Your task to perform on an android device: find photos in the google photos app Image 0: 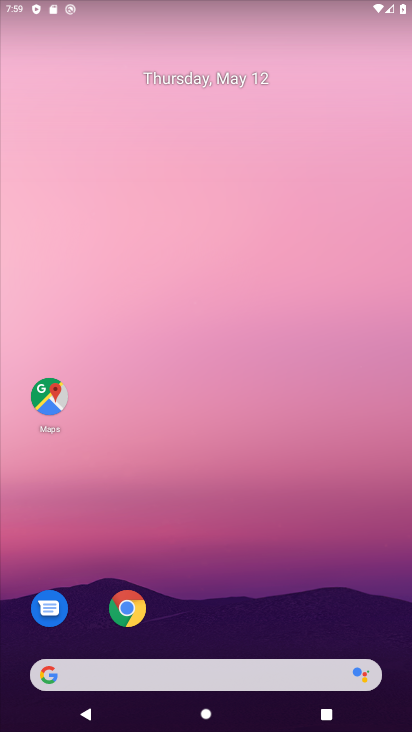
Step 0: drag from (248, 627) to (290, 10)
Your task to perform on an android device: find photos in the google photos app Image 1: 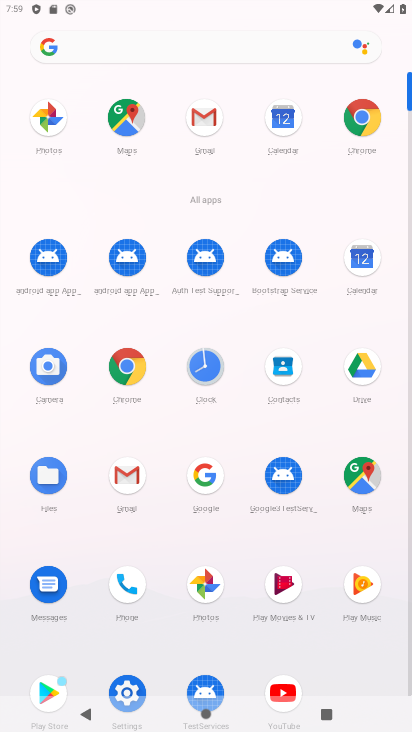
Step 1: click (48, 135)
Your task to perform on an android device: find photos in the google photos app Image 2: 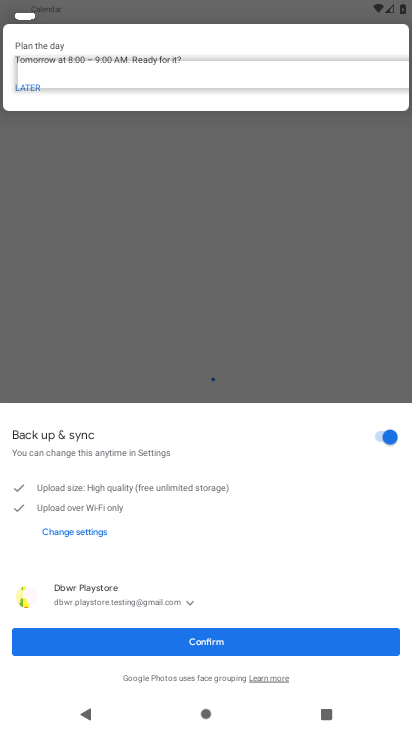
Step 2: click (247, 645)
Your task to perform on an android device: find photos in the google photos app Image 3: 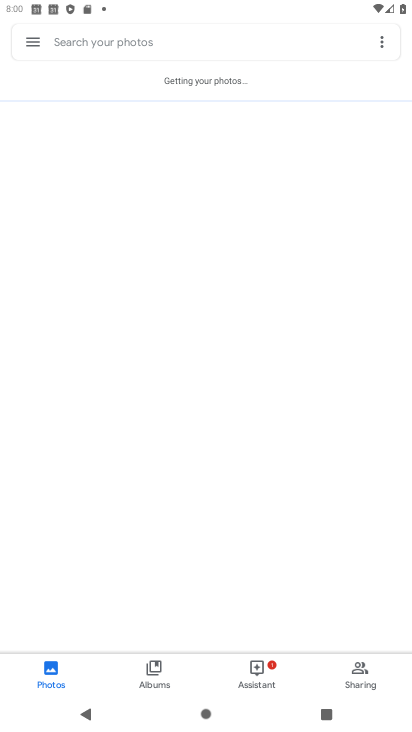
Step 3: click (50, 671)
Your task to perform on an android device: find photos in the google photos app Image 4: 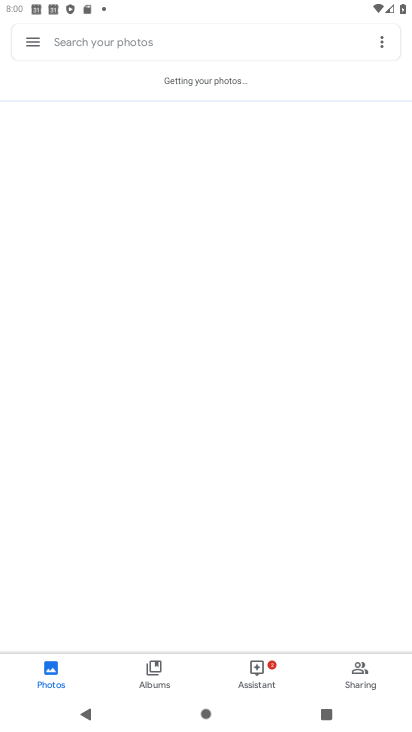
Step 4: click (155, 682)
Your task to perform on an android device: find photos in the google photos app Image 5: 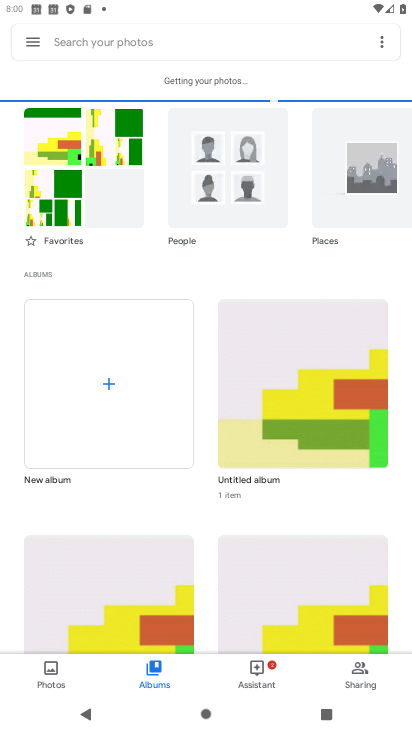
Step 5: click (79, 216)
Your task to perform on an android device: find photos in the google photos app Image 6: 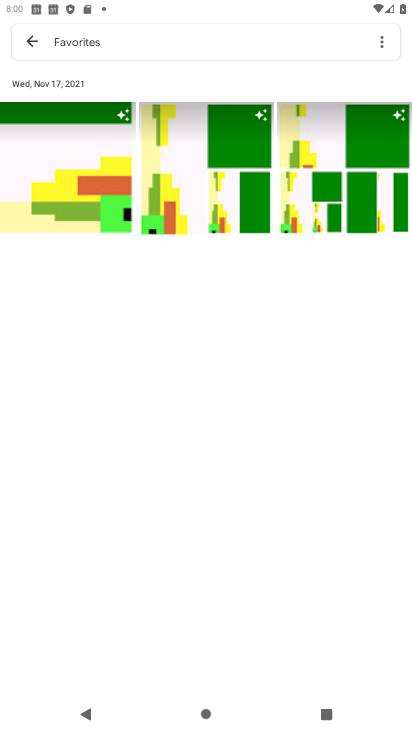
Step 6: task complete